Your task to perform on an android device: What's a good restaurant in San Diego? Image 0: 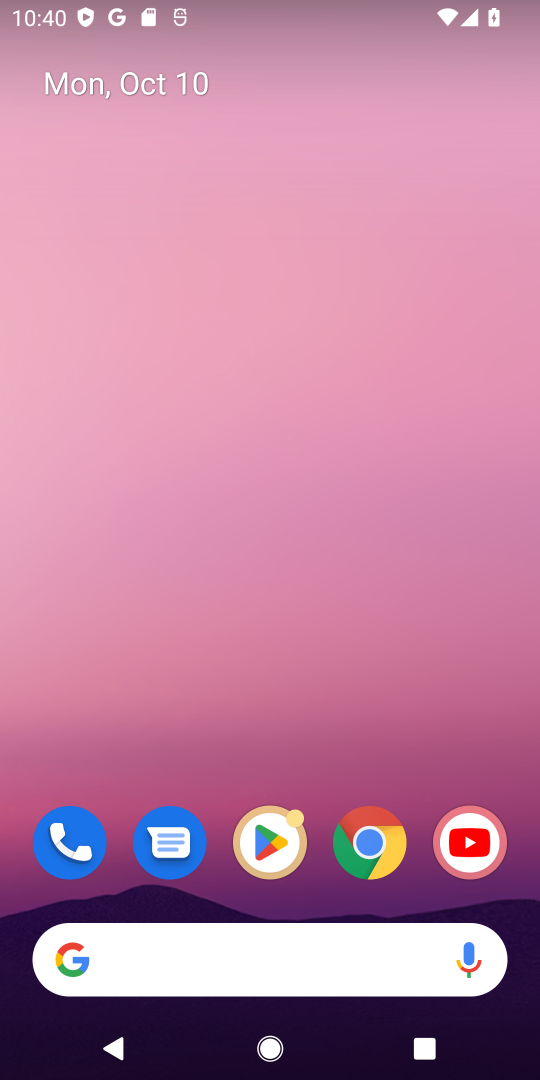
Step 0: click (320, 963)
Your task to perform on an android device: What's a good restaurant in San Diego? Image 1: 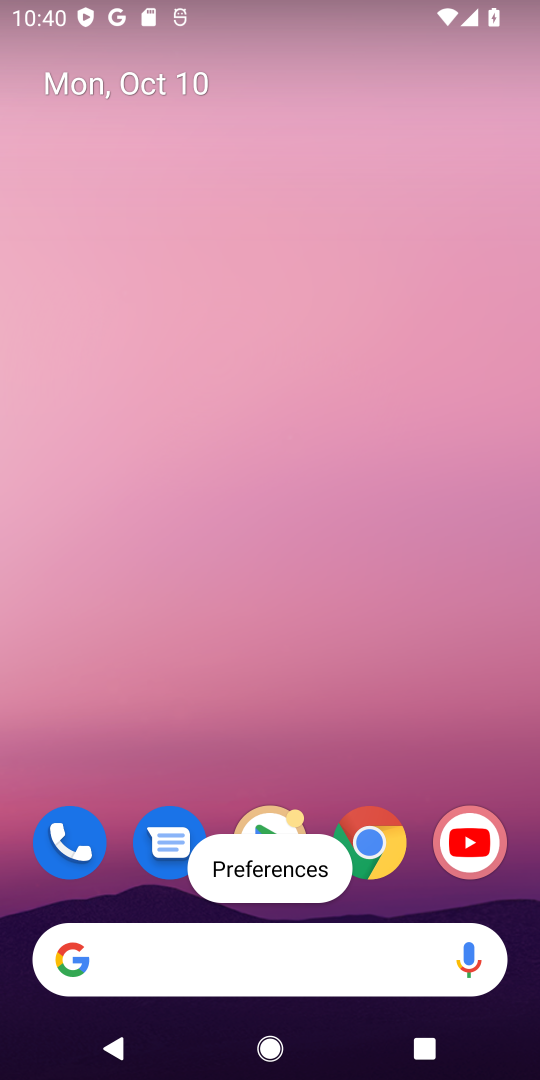
Step 1: click (268, 960)
Your task to perform on an android device: What's a good restaurant in San Diego? Image 2: 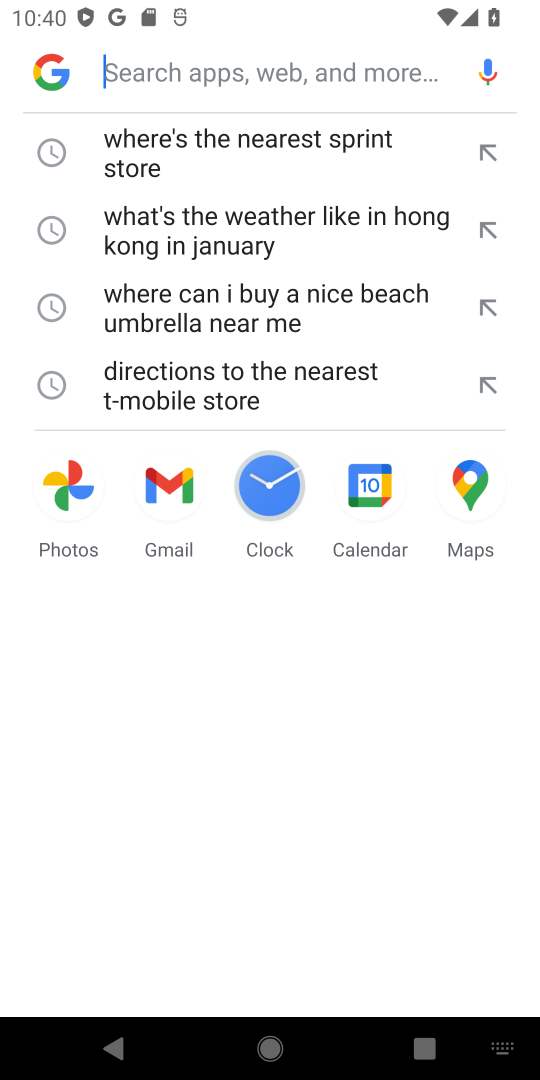
Step 2: click (186, 58)
Your task to perform on an android device: What's a good restaurant in San Diego? Image 3: 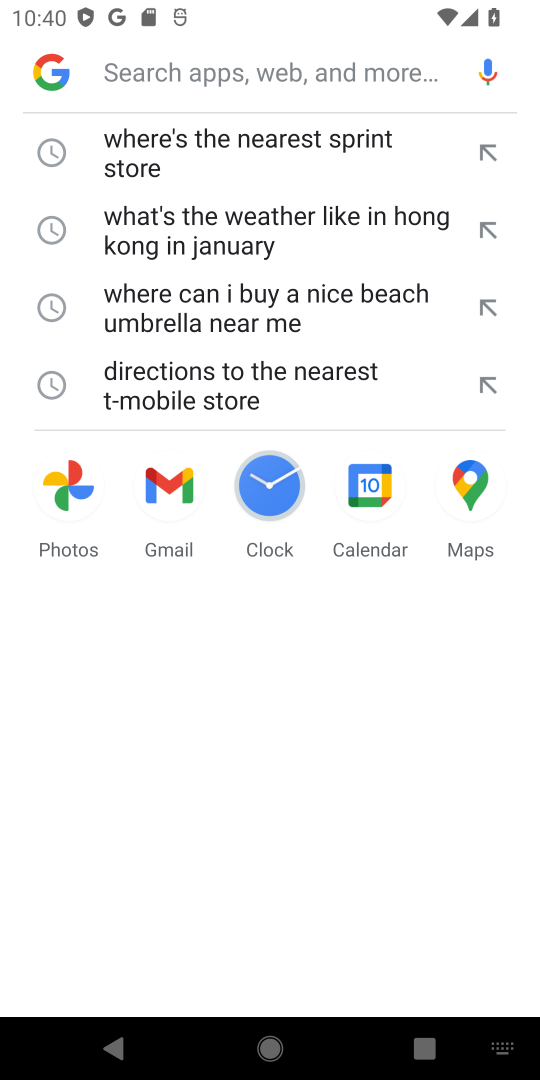
Step 3: type "What's a good restaurant in San Diego?"
Your task to perform on an android device: What's a good restaurant in San Diego? Image 4: 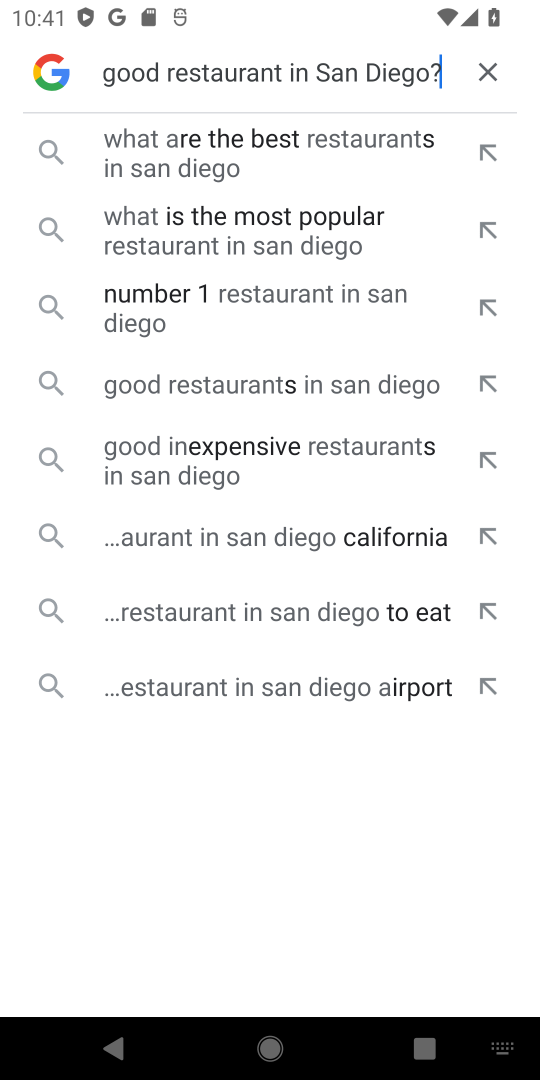
Step 4: click (267, 165)
Your task to perform on an android device: What's a good restaurant in San Diego? Image 5: 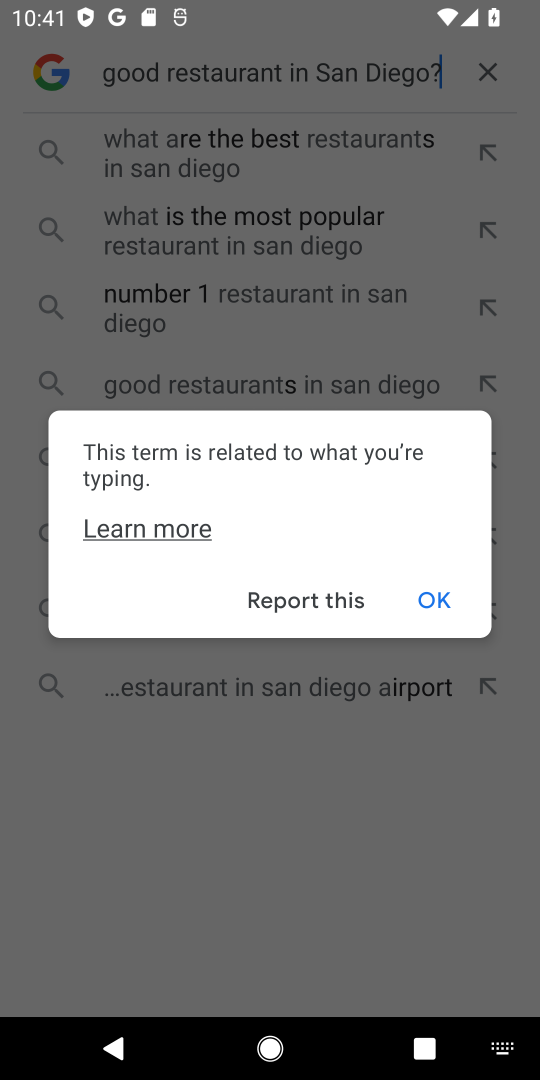
Step 5: click (424, 611)
Your task to perform on an android device: What's a good restaurant in San Diego? Image 6: 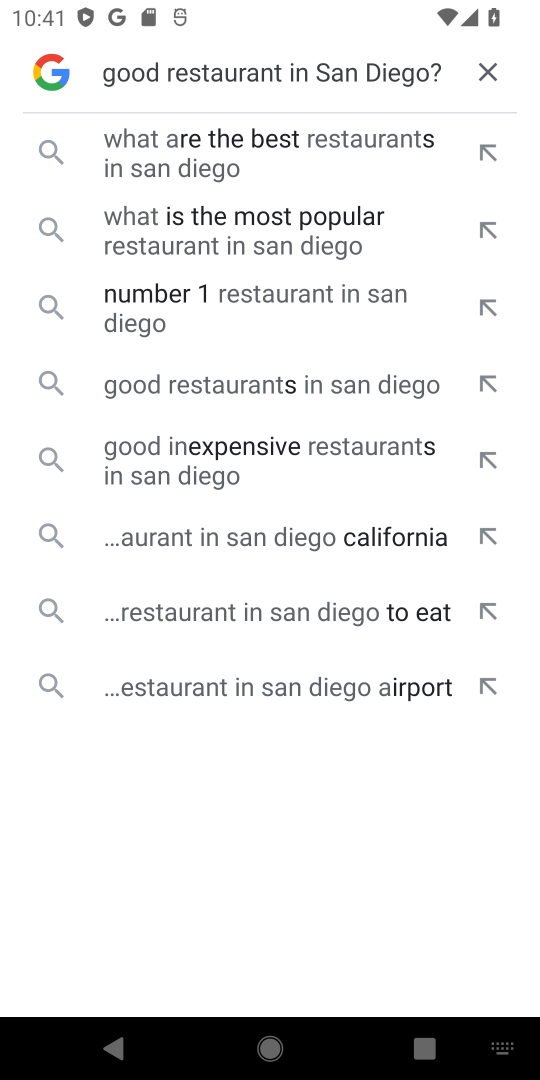
Step 6: click (238, 172)
Your task to perform on an android device: What's a good restaurant in San Diego? Image 7: 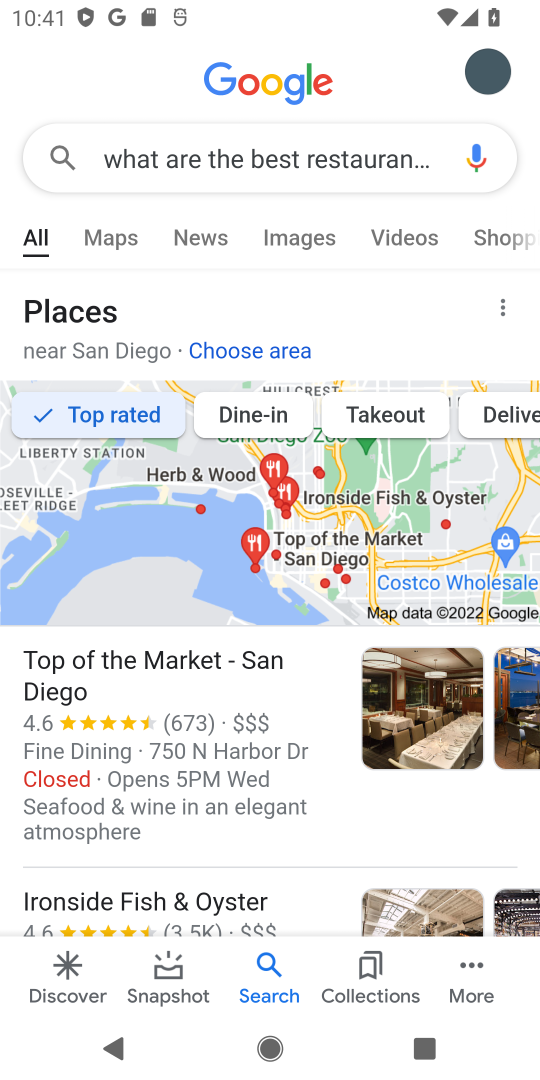
Step 7: task complete